Your task to perform on an android device: Open Android settings Image 0: 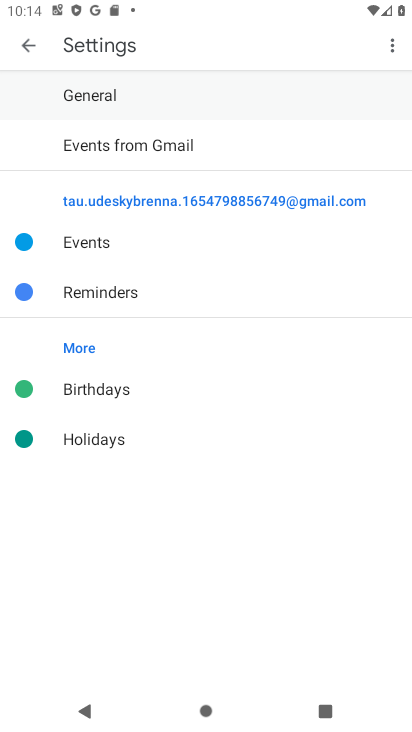
Step 0: press home button
Your task to perform on an android device: Open Android settings Image 1: 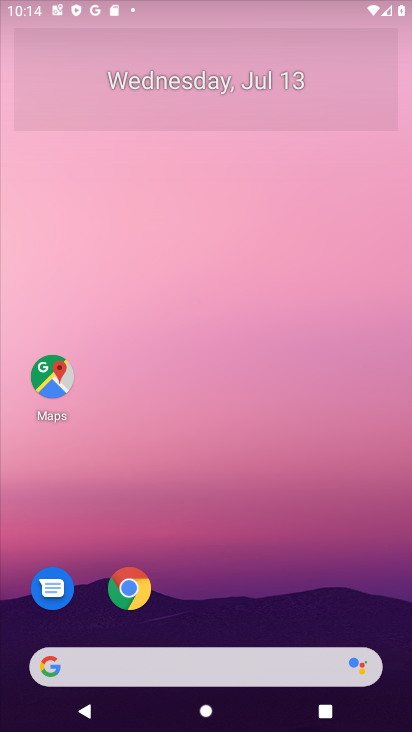
Step 1: drag from (219, 593) to (265, 42)
Your task to perform on an android device: Open Android settings Image 2: 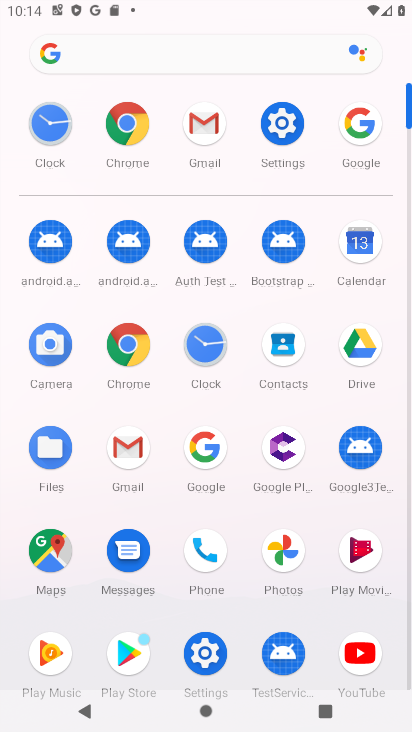
Step 2: click (283, 119)
Your task to perform on an android device: Open Android settings Image 3: 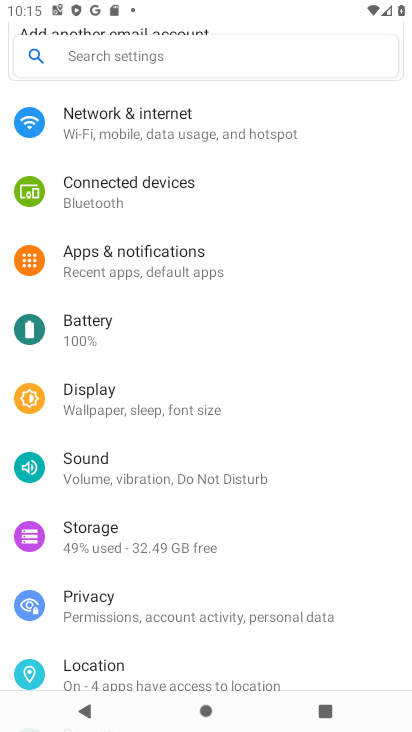
Step 3: task complete